Your task to perform on an android device: Go to battery settings Image 0: 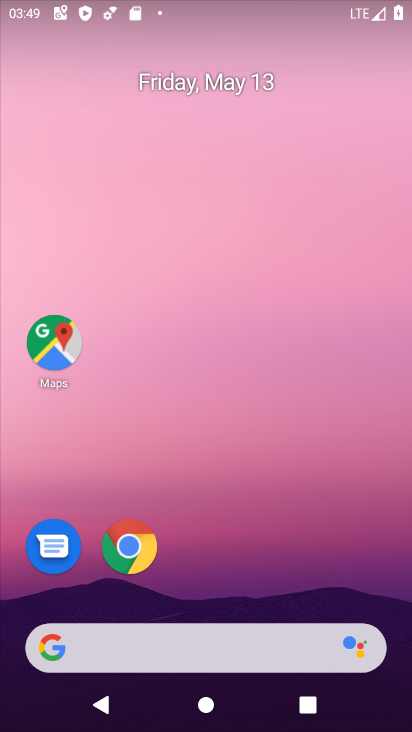
Step 0: drag from (205, 612) to (290, 148)
Your task to perform on an android device: Go to battery settings Image 1: 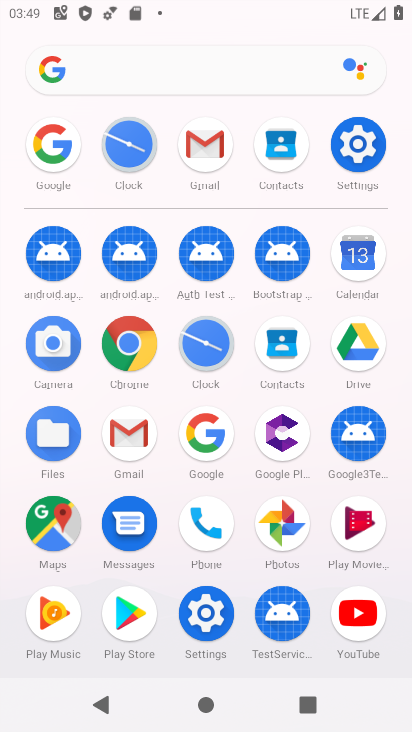
Step 1: click (345, 148)
Your task to perform on an android device: Go to battery settings Image 2: 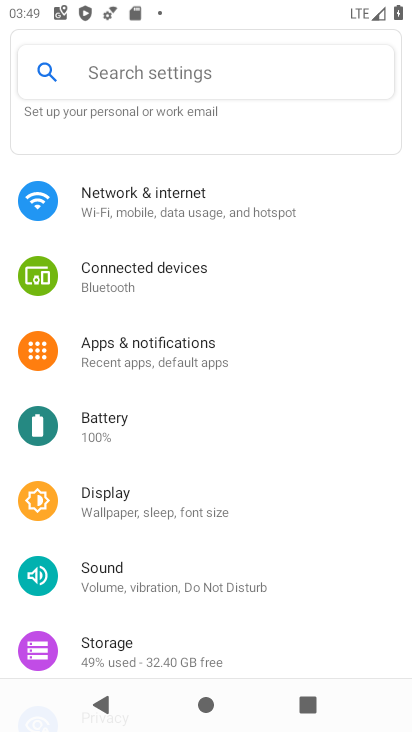
Step 2: click (170, 430)
Your task to perform on an android device: Go to battery settings Image 3: 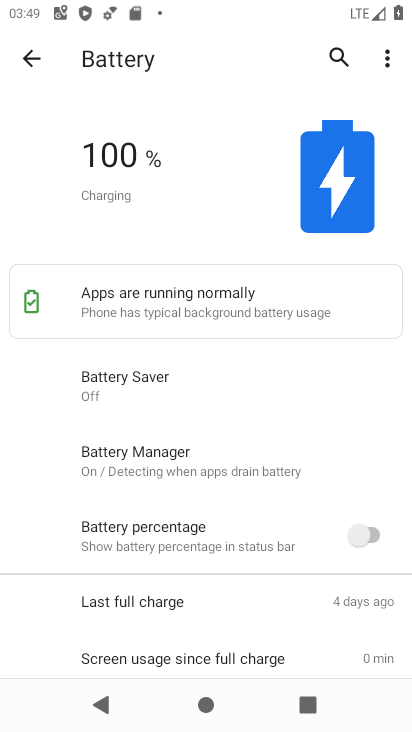
Step 3: task complete